Your task to perform on an android device: see tabs open on other devices in the chrome app Image 0: 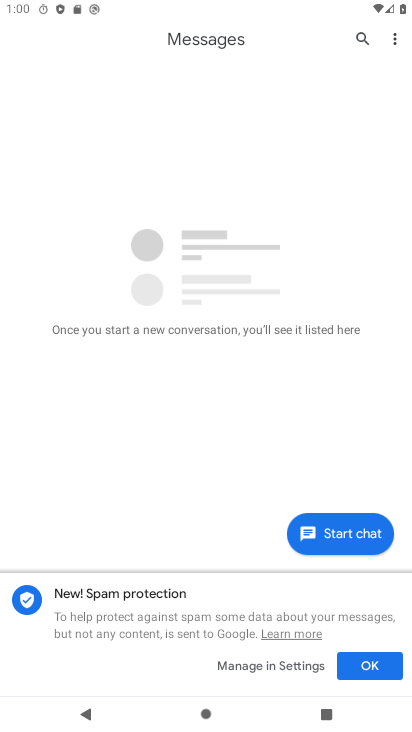
Step 0: press home button
Your task to perform on an android device: see tabs open on other devices in the chrome app Image 1: 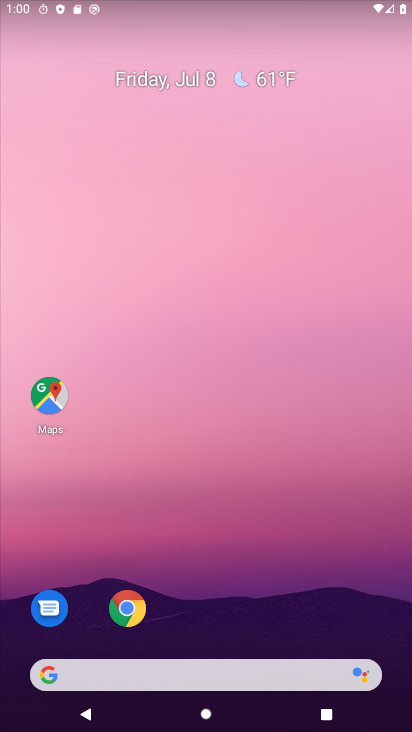
Step 1: drag from (211, 633) to (272, 188)
Your task to perform on an android device: see tabs open on other devices in the chrome app Image 2: 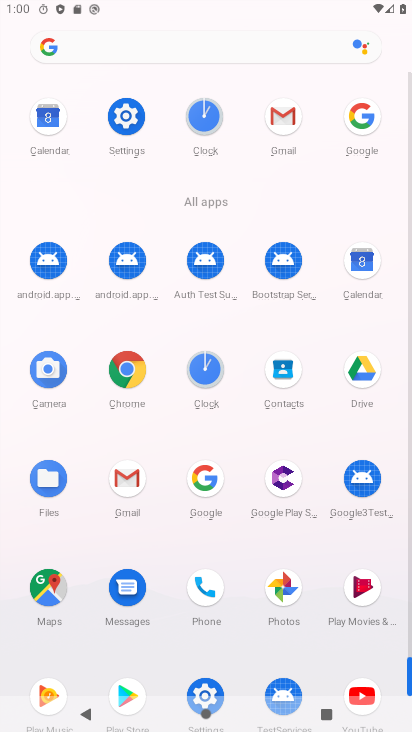
Step 2: click (123, 367)
Your task to perform on an android device: see tabs open on other devices in the chrome app Image 3: 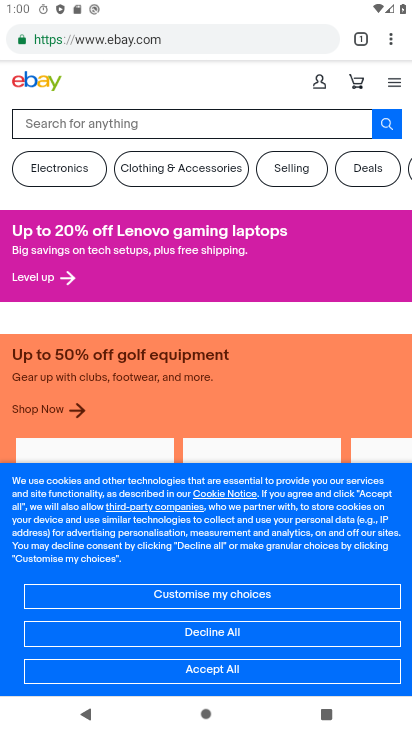
Step 3: click (383, 36)
Your task to perform on an android device: see tabs open on other devices in the chrome app Image 4: 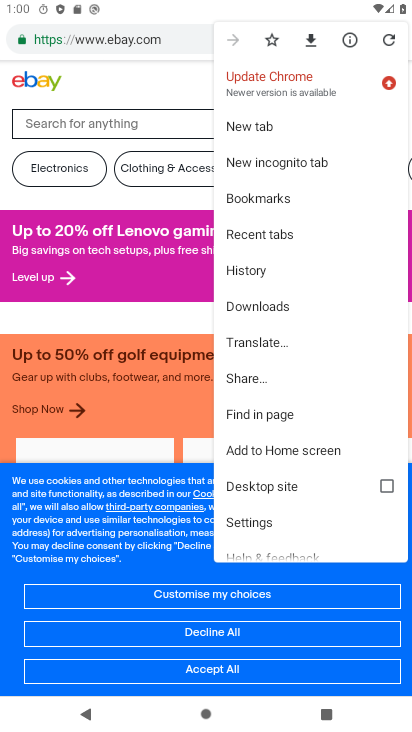
Step 4: click (266, 237)
Your task to perform on an android device: see tabs open on other devices in the chrome app Image 5: 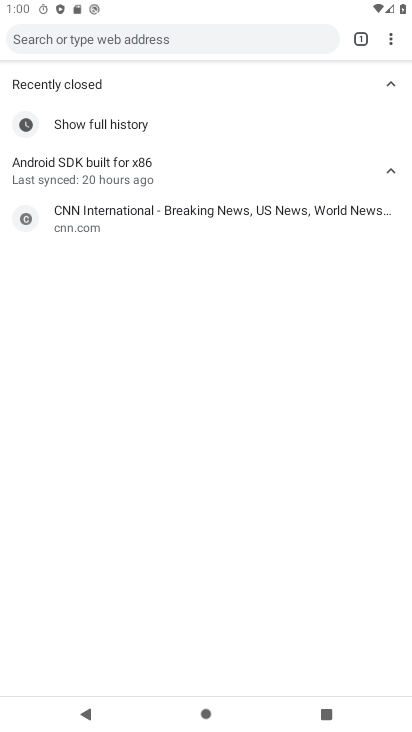
Step 5: task complete